Your task to perform on an android device: check battery use Image 0: 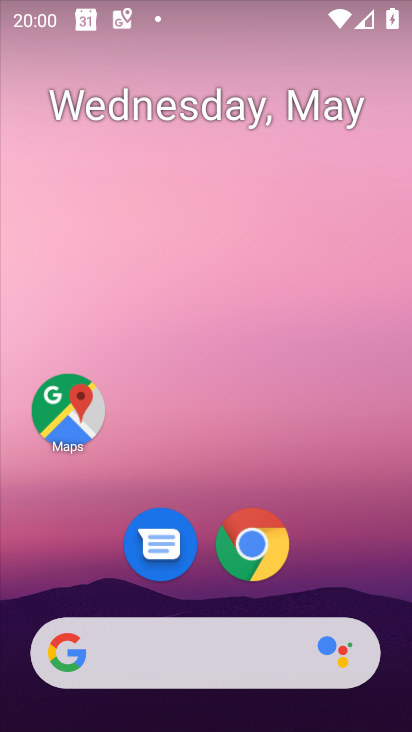
Step 0: drag from (216, 579) to (209, 101)
Your task to perform on an android device: check battery use Image 1: 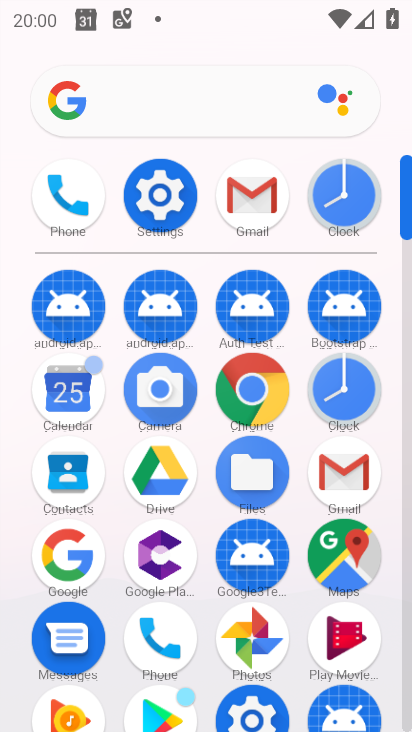
Step 1: click (171, 207)
Your task to perform on an android device: check battery use Image 2: 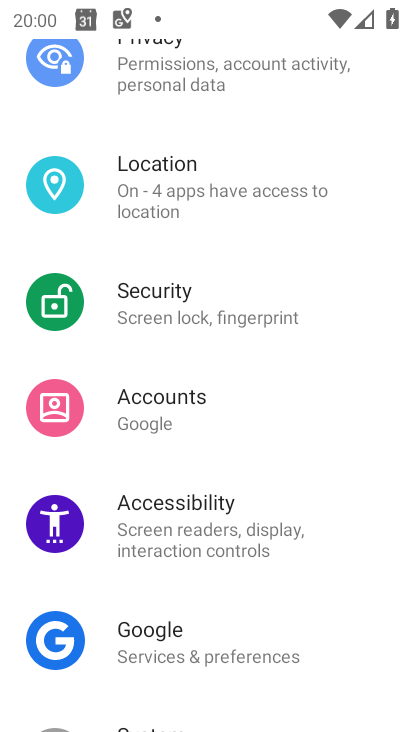
Step 2: drag from (171, 207) to (142, 652)
Your task to perform on an android device: check battery use Image 3: 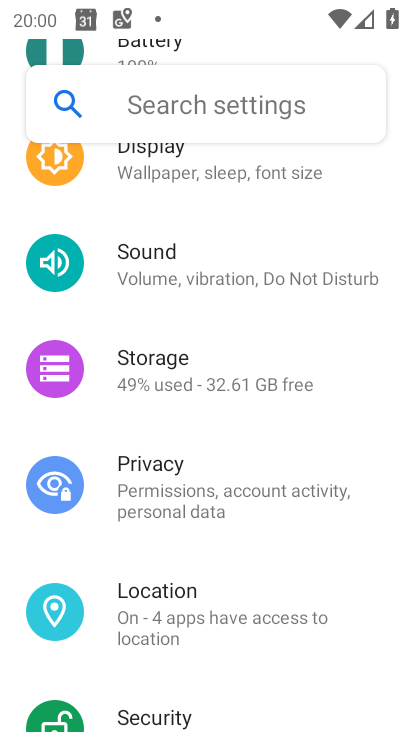
Step 3: drag from (204, 228) to (203, 645)
Your task to perform on an android device: check battery use Image 4: 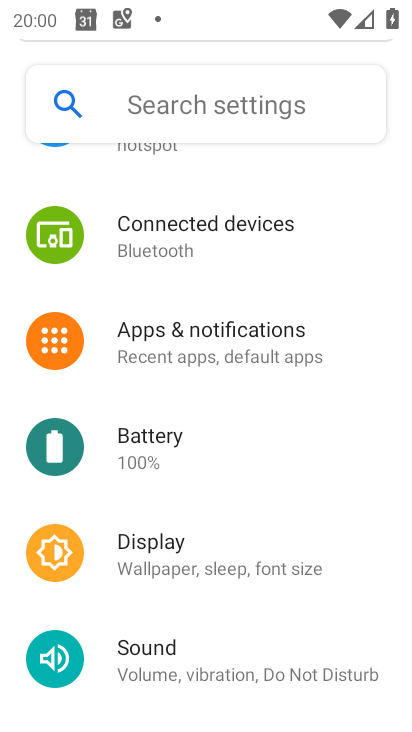
Step 4: click (147, 478)
Your task to perform on an android device: check battery use Image 5: 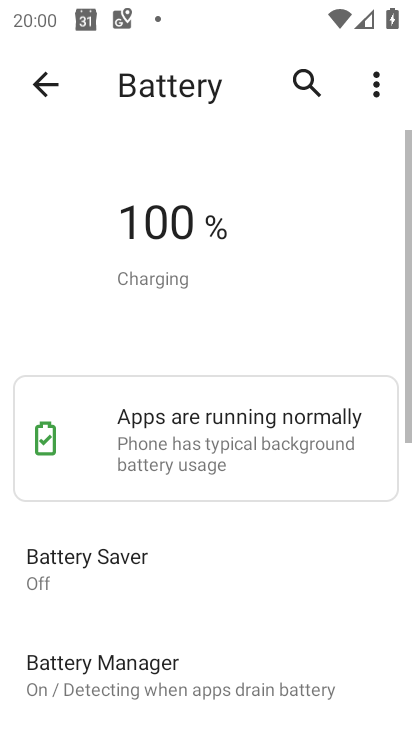
Step 5: click (388, 83)
Your task to perform on an android device: check battery use Image 6: 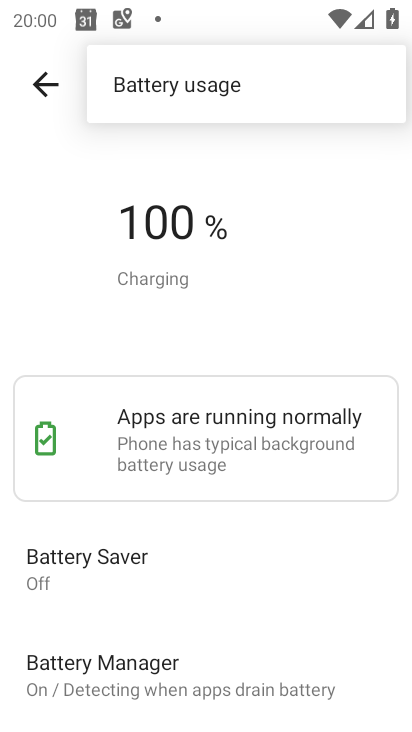
Step 6: click (238, 99)
Your task to perform on an android device: check battery use Image 7: 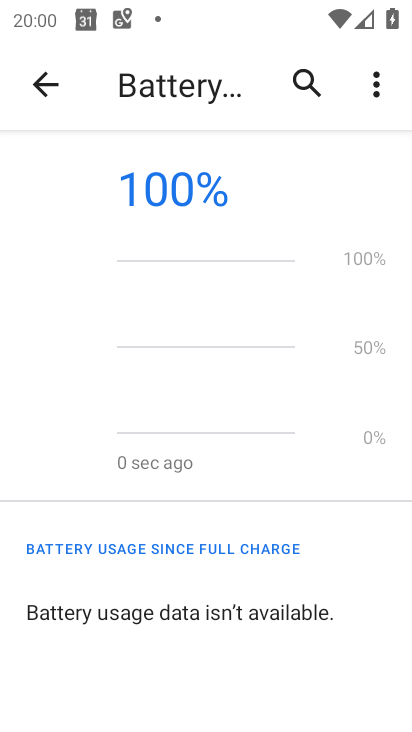
Step 7: task complete